Your task to perform on an android device: Go to network settings Image 0: 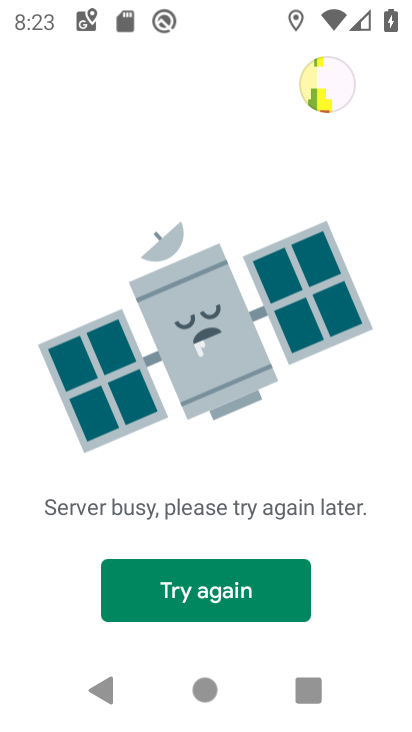
Step 0: press home button
Your task to perform on an android device: Go to network settings Image 1: 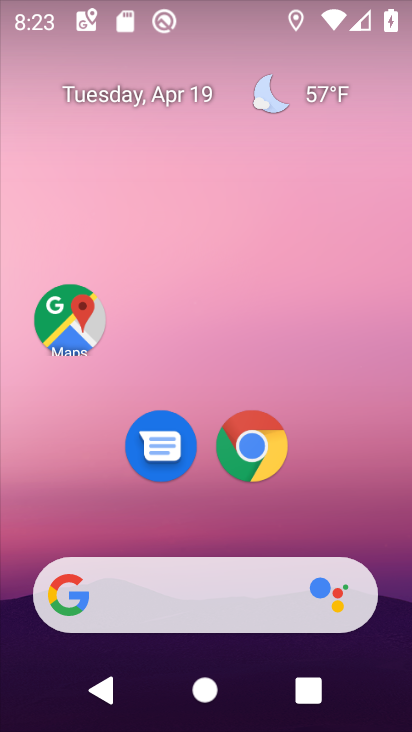
Step 1: drag from (342, 455) to (325, 77)
Your task to perform on an android device: Go to network settings Image 2: 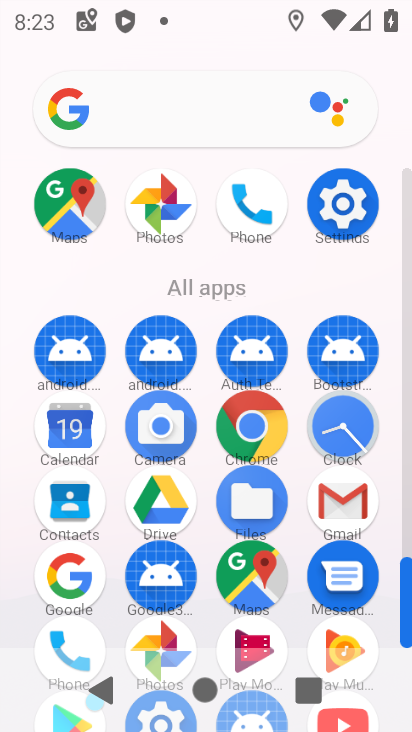
Step 2: click (354, 214)
Your task to perform on an android device: Go to network settings Image 3: 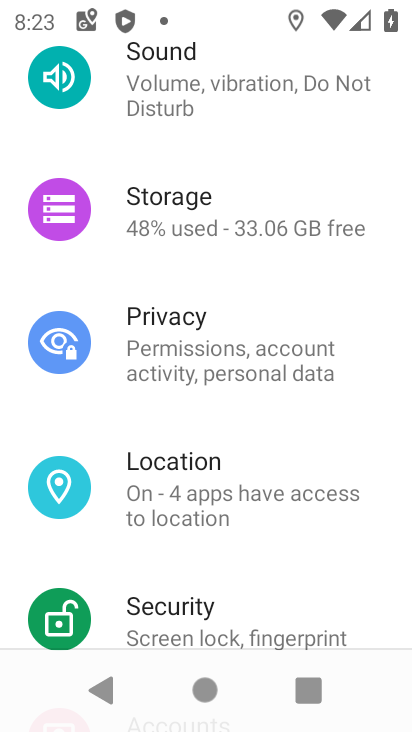
Step 3: drag from (214, 183) to (219, 612)
Your task to perform on an android device: Go to network settings Image 4: 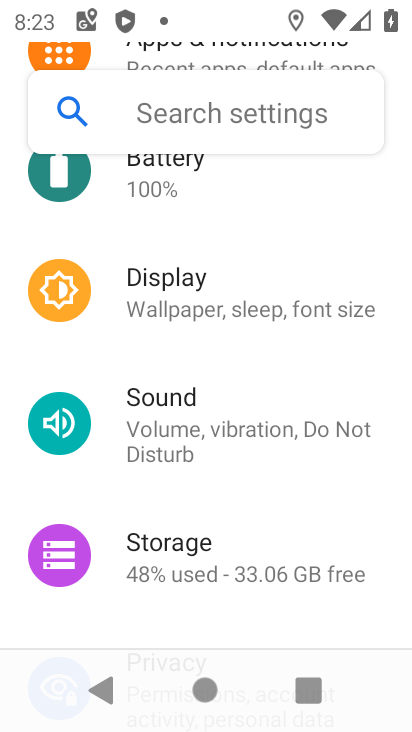
Step 4: drag from (188, 296) to (154, 635)
Your task to perform on an android device: Go to network settings Image 5: 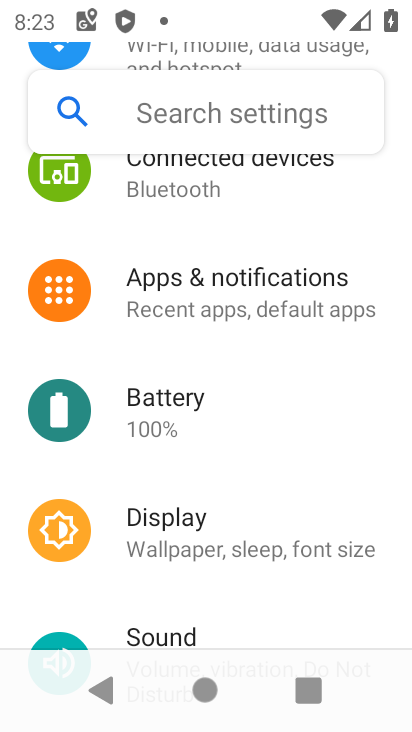
Step 5: drag from (206, 200) to (167, 602)
Your task to perform on an android device: Go to network settings Image 6: 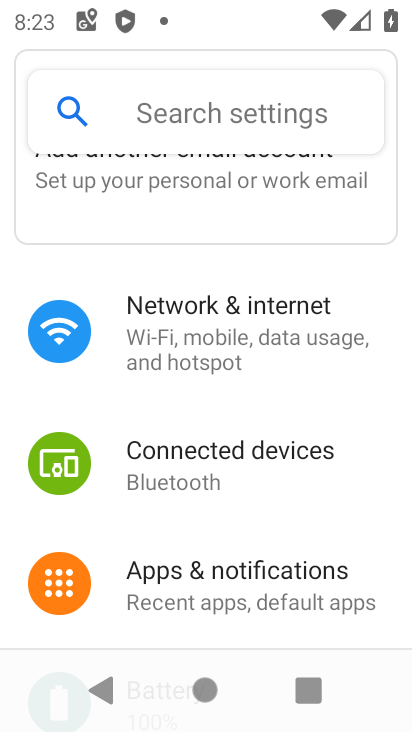
Step 6: click (145, 343)
Your task to perform on an android device: Go to network settings Image 7: 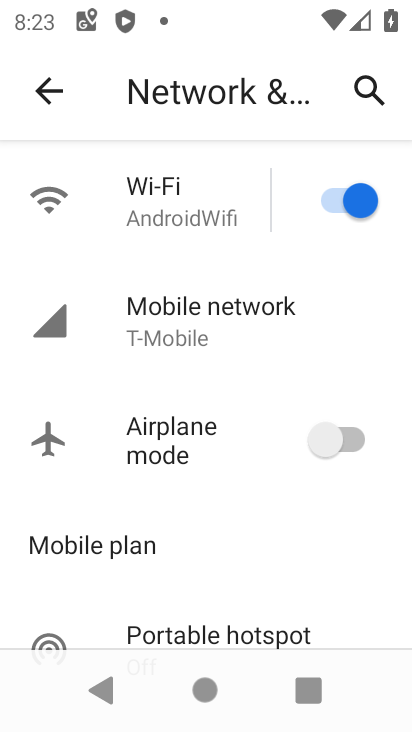
Step 7: click (183, 333)
Your task to perform on an android device: Go to network settings Image 8: 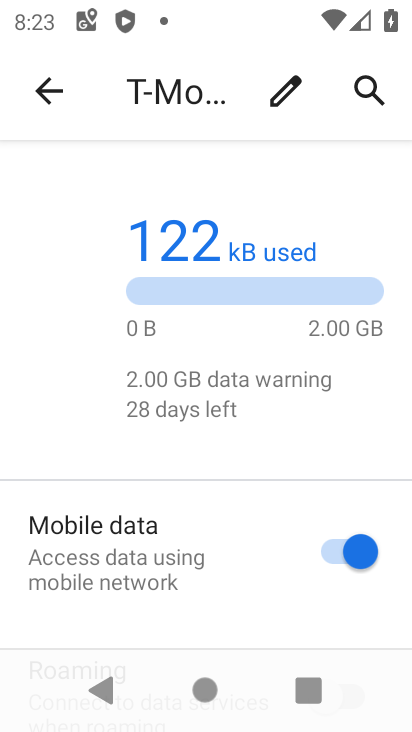
Step 8: drag from (178, 593) to (228, 152)
Your task to perform on an android device: Go to network settings Image 9: 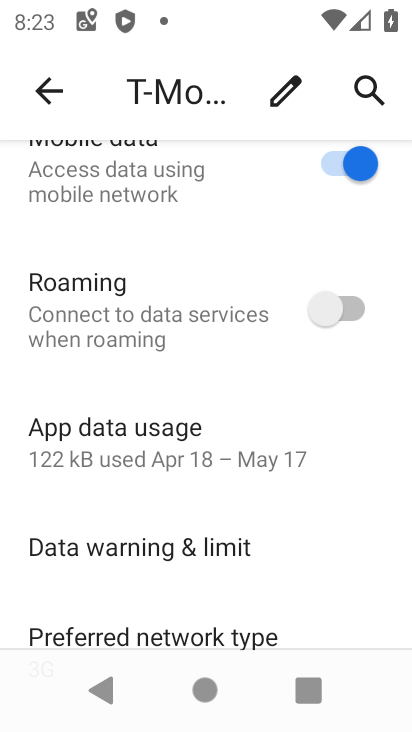
Step 9: drag from (171, 541) to (169, 151)
Your task to perform on an android device: Go to network settings Image 10: 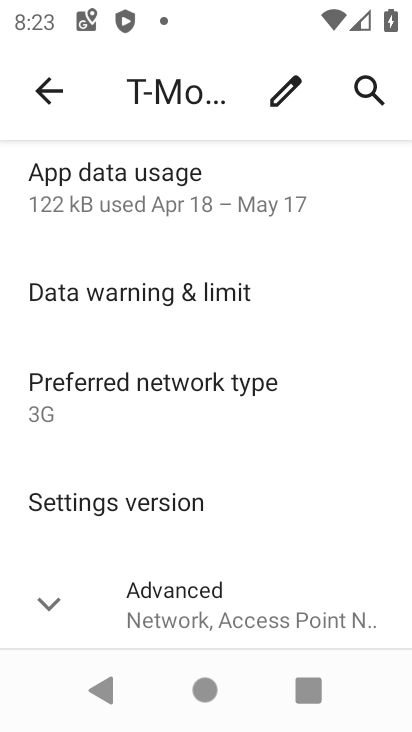
Step 10: drag from (204, 569) to (220, 326)
Your task to perform on an android device: Go to network settings Image 11: 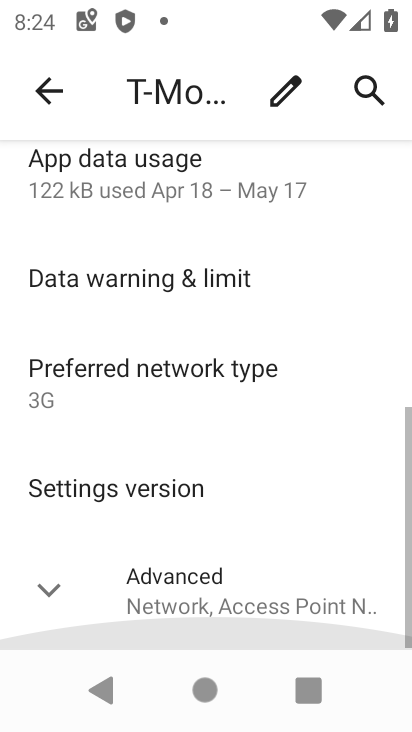
Step 11: click (180, 584)
Your task to perform on an android device: Go to network settings Image 12: 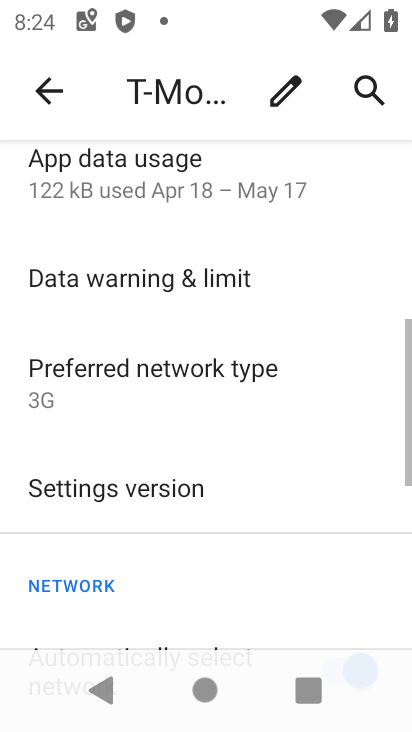
Step 12: task complete